Your task to perform on an android device: make emails show in primary in the gmail app Image 0: 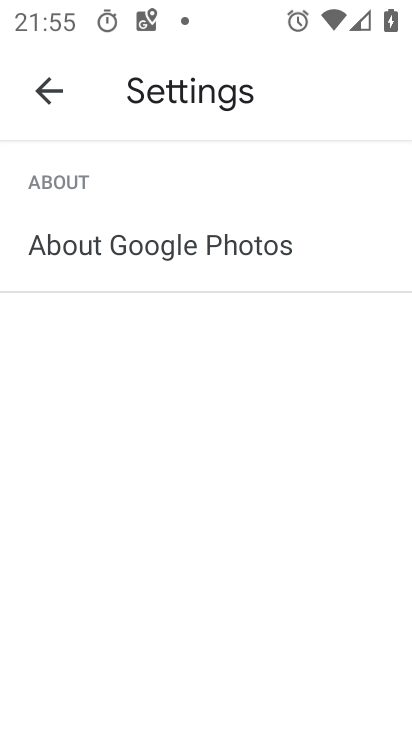
Step 0: press home button
Your task to perform on an android device: make emails show in primary in the gmail app Image 1: 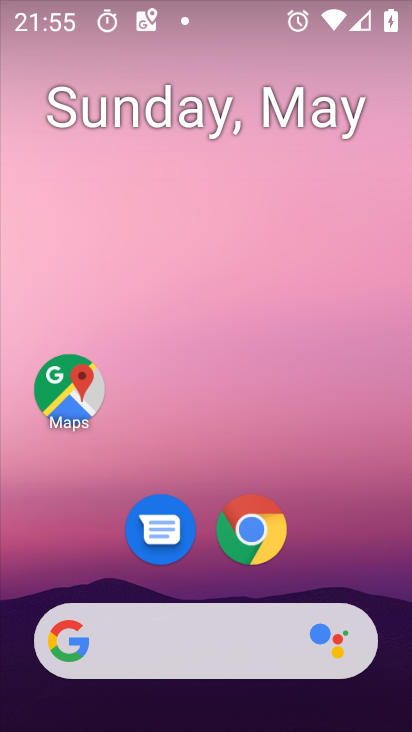
Step 1: drag from (364, 595) to (319, 0)
Your task to perform on an android device: make emails show in primary in the gmail app Image 2: 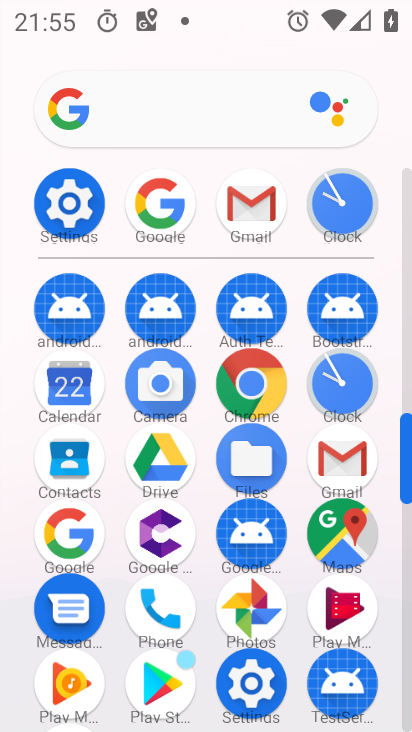
Step 2: click (237, 212)
Your task to perform on an android device: make emails show in primary in the gmail app Image 3: 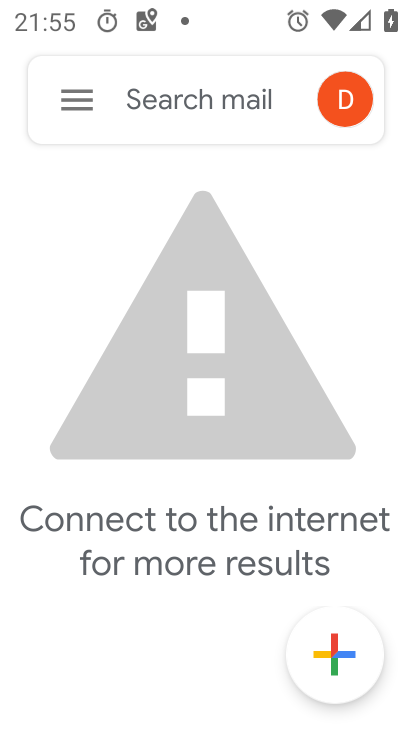
Step 3: click (73, 99)
Your task to perform on an android device: make emails show in primary in the gmail app Image 4: 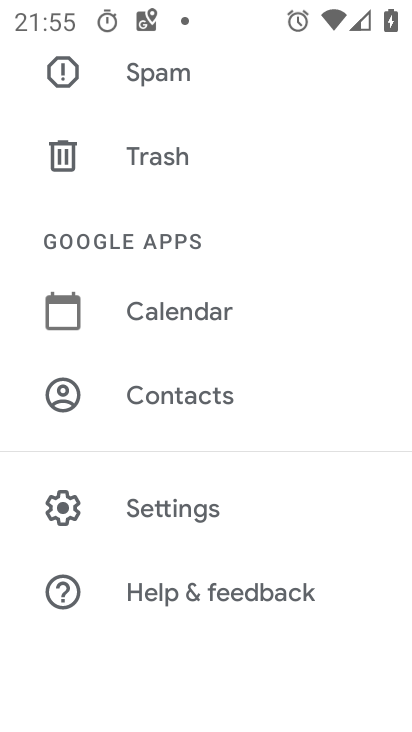
Step 4: click (178, 516)
Your task to perform on an android device: make emails show in primary in the gmail app Image 5: 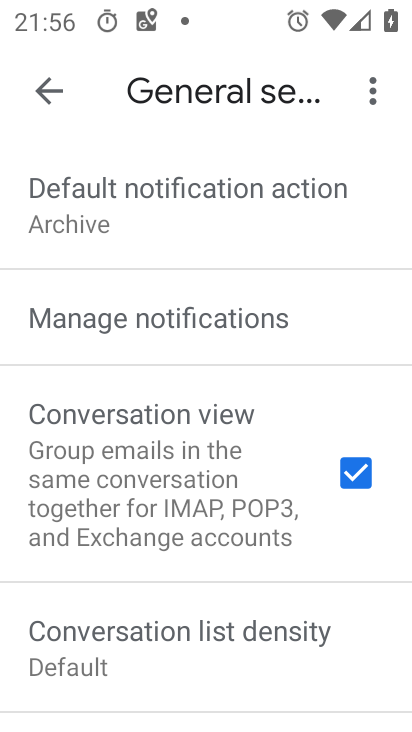
Step 5: click (48, 99)
Your task to perform on an android device: make emails show in primary in the gmail app Image 6: 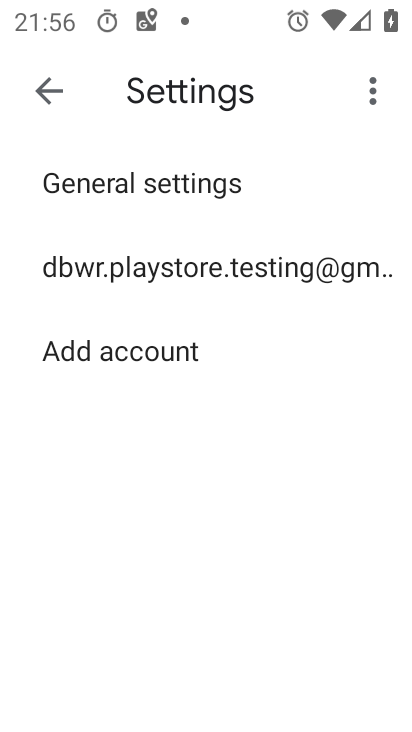
Step 6: click (130, 273)
Your task to perform on an android device: make emails show in primary in the gmail app Image 7: 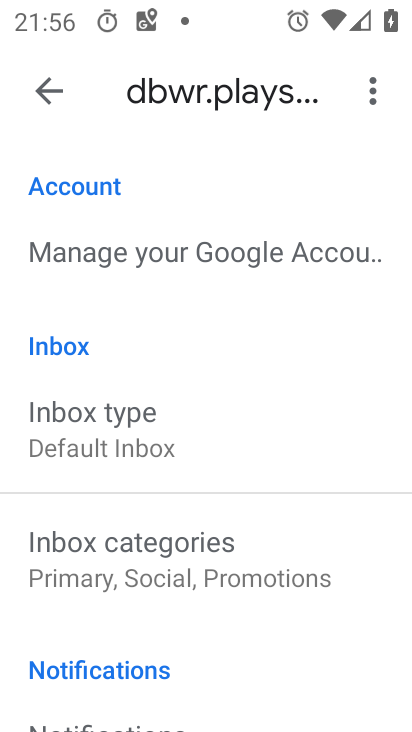
Step 7: click (163, 564)
Your task to perform on an android device: make emails show in primary in the gmail app Image 8: 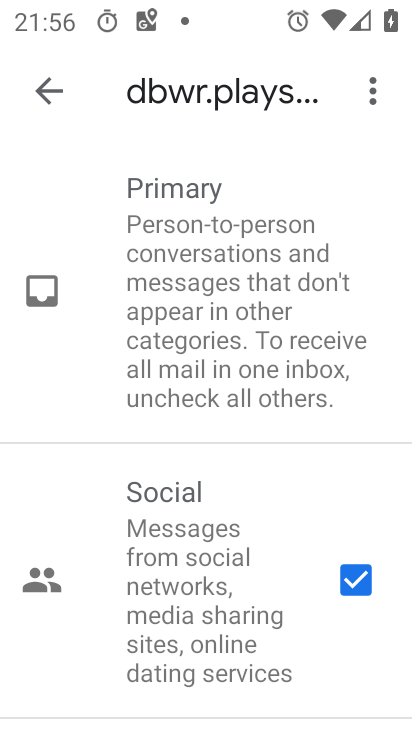
Step 8: click (363, 586)
Your task to perform on an android device: make emails show in primary in the gmail app Image 9: 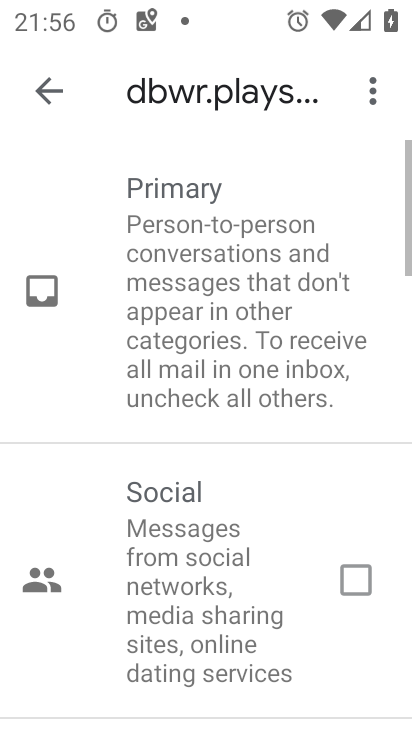
Step 9: drag from (157, 574) to (154, 210)
Your task to perform on an android device: make emails show in primary in the gmail app Image 10: 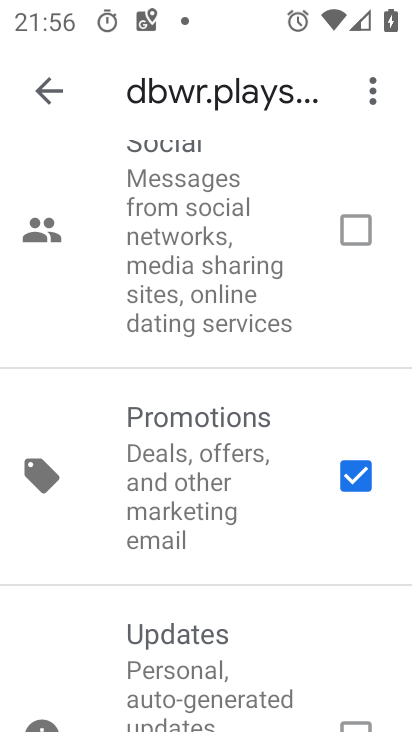
Step 10: click (368, 482)
Your task to perform on an android device: make emails show in primary in the gmail app Image 11: 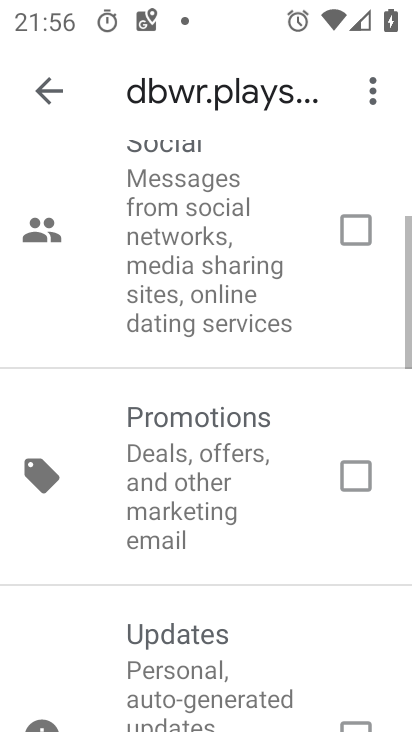
Step 11: drag from (203, 515) to (191, 161)
Your task to perform on an android device: make emails show in primary in the gmail app Image 12: 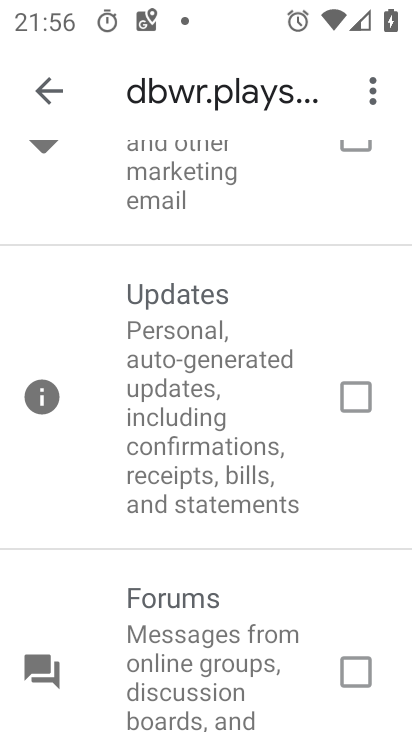
Step 12: click (42, 97)
Your task to perform on an android device: make emails show in primary in the gmail app Image 13: 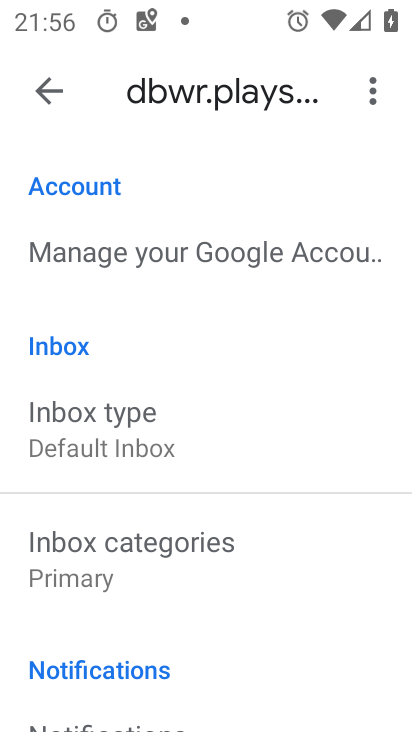
Step 13: task complete